Your task to perform on an android device: Clear the cart on walmart. Search for macbook pro 13 inch on walmart, select the first entry, add it to the cart, then select checkout. Image 0: 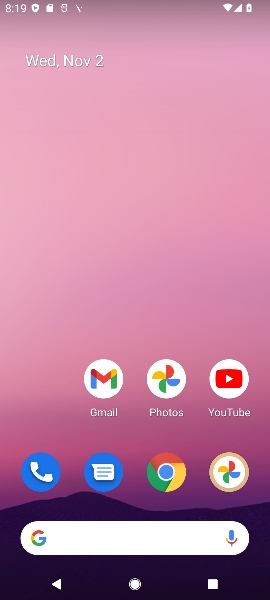
Step 0: click (163, 467)
Your task to perform on an android device: Clear the cart on walmart. Search for macbook pro 13 inch on walmart, select the first entry, add it to the cart, then select checkout. Image 1: 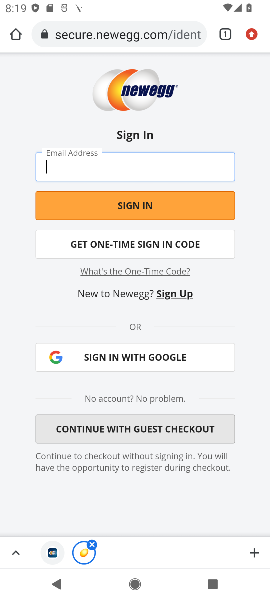
Step 1: click (114, 34)
Your task to perform on an android device: Clear the cart on walmart. Search for macbook pro 13 inch on walmart, select the first entry, add it to the cart, then select checkout. Image 2: 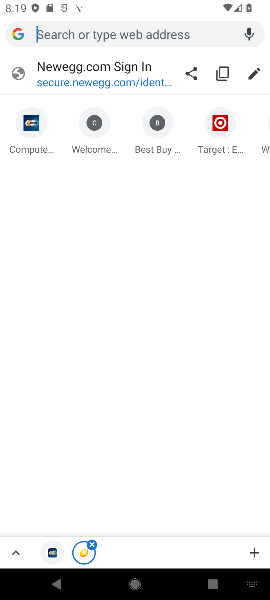
Step 2: type "walmart"
Your task to perform on an android device: Clear the cart on walmart. Search for macbook pro 13 inch on walmart, select the first entry, add it to the cart, then select checkout. Image 3: 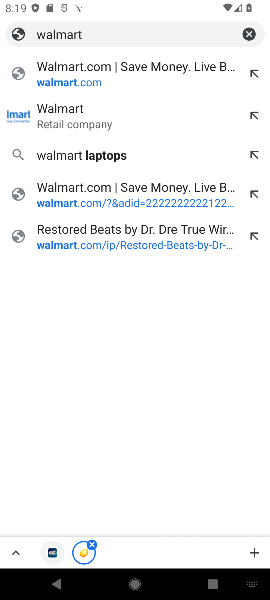
Step 3: click (83, 70)
Your task to perform on an android device: Clear the cart on walmart. Search for macbook pro 13 inch on walmart, select the first entry, add it to the cart, then select checkout. Image 4: 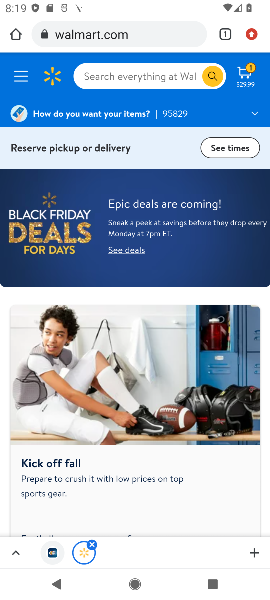
Step 4: click (249, 76)
Your task to perform on an android device: Clear the cart on walmart. Search for macbook pro 13 inch on walmart, select the first entry, add it to the cart, then select checkout. Image 5: 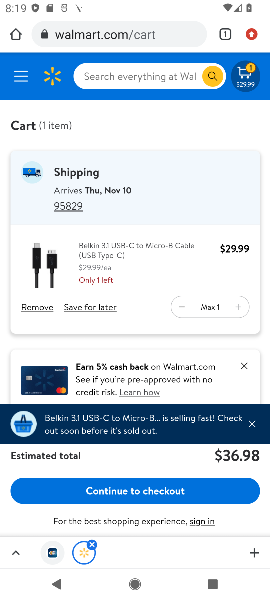
Step 5: click (31, 306)
Your task to perform on an android device: Clear the cart on walmart. Search for macbook pro 13 inch on walmart, select the first entry, add it to the cart, then select checkout. Image 6: 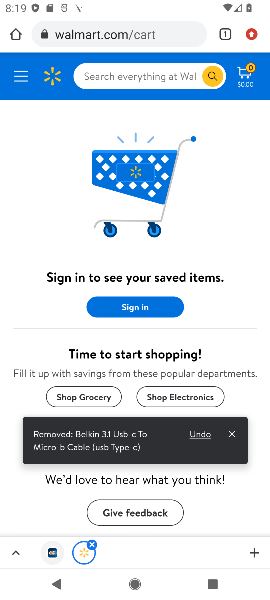
Step 6: click (154, 80)
Your task to perform on an android device: Clear the cart on walmart. Search for macbook pro 13 inch on walmart, select the first entry, add it to the cart, then select checkout. Image 7: 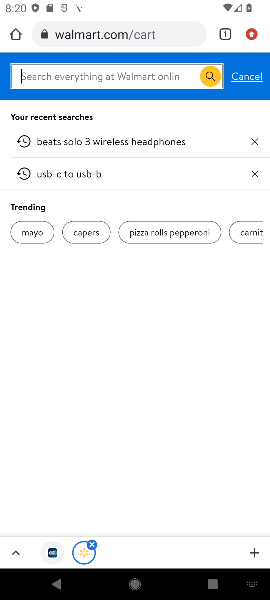
Step 7: type "macbook pro 13 inch"
Your task to perform on an android device: Clear the cart on walmart. Search for macbook pro 13 inch on walmart, select the first entry, add it to the cart, then select checkout. Image 8: 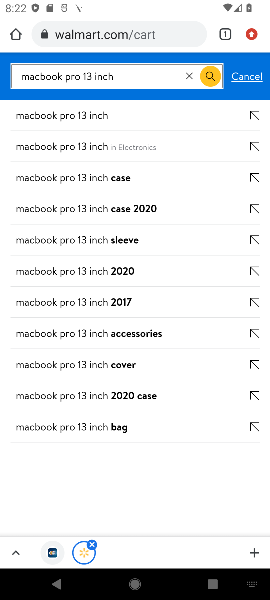
Step 8: click (107, 118)
Your task to perform on an android device: Clear the cart on walmart. Search for macbook pro 13 inch on walmart, select the first entry, add it to the cart, then select checkout. Image 9: 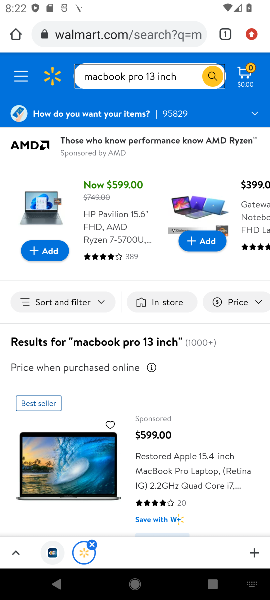
Step 9: drag from (189, 414) to (193, 190)
Your task to perform on an android device: Clear the cart on walmart. Search for macbook pro 13 inch on walmart, select the first entry, add it to the cart, then select checkout. Image 10: 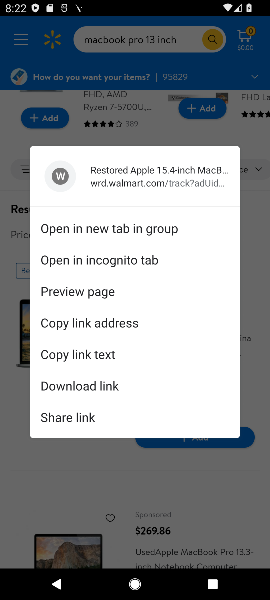
Step 10: click (256, 215)
Your task to perform on an android device: Clear the cart on walmart. Search for macbook pro 13 inch on walmart, select the first entry, add it to the cart, then select checkout. Image 11: 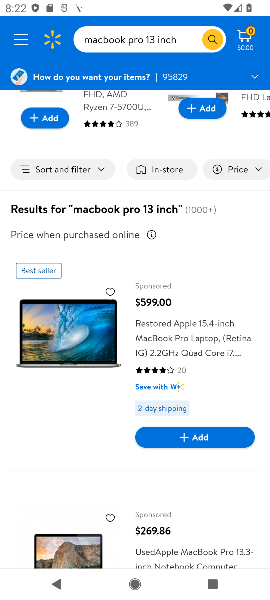
Step 11: click (190, 436)
Your task to perform on an android device: Clear the cart on walmart. Search for macbook pro 13 inch on walmart, select the first entry, add it to the cart, then select checkout. Image 12: 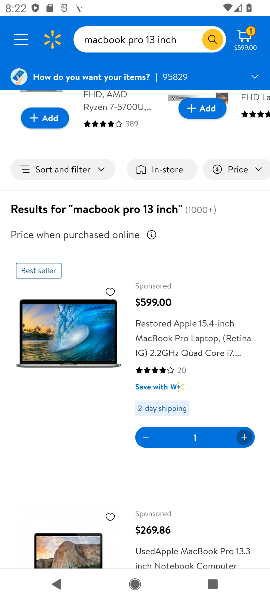
Step 12: click (245, 35)
Your task to perform on an android device: Clear the cart on walmart. Search for macbook pro 13 inch on walmart, select the first entry, add it to the cart, then select checkout. Image 13: 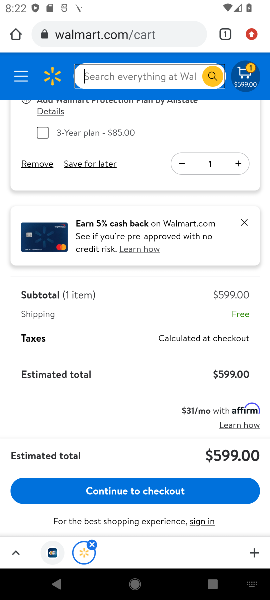
Step 13: click (85, 488)
Your task to perform on an android device: Clear the cart on walmart. Search for macbook pro 13 inch on walmart, select the first entry, add it to the cart, then select checkout. Image 14: 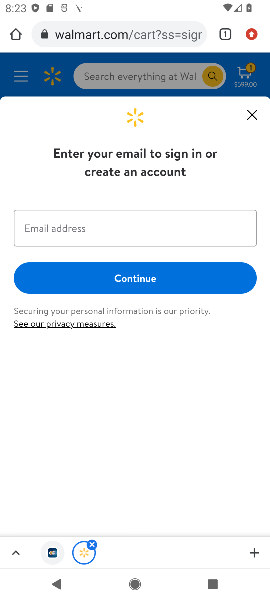
Step 14: task complete